Your task to perform on an android device: change keyboard looks Image 0: 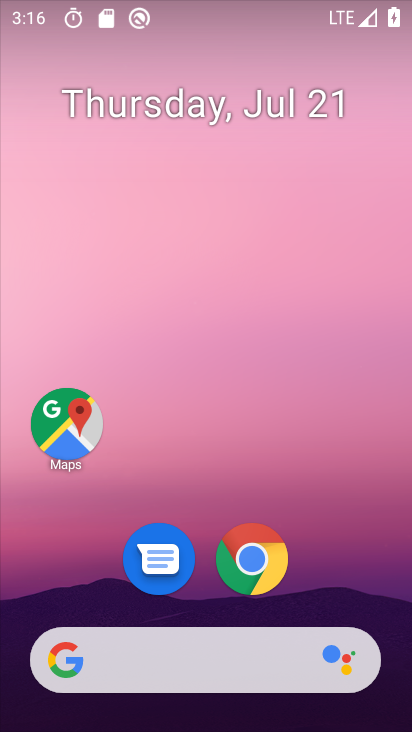
Step 0: drag from (358, 547) to (382, 83)
Your task to perform on an android device: change keyboard looks Image 1: 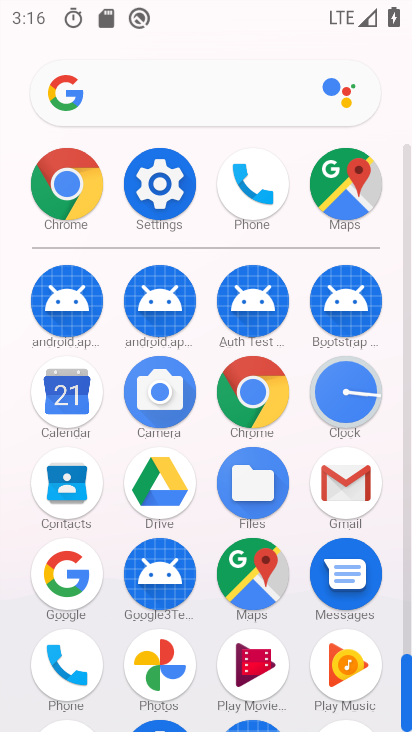
Step 1: click (170, 180)
Your task to perform on an android device: change keyboard looks Image 2: 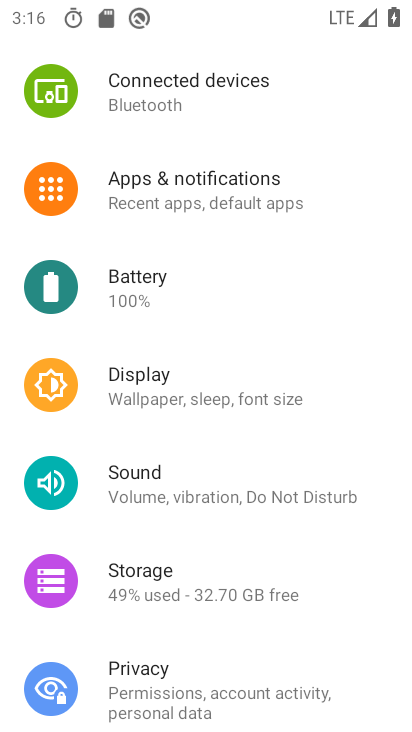
Step 2: drag from (369, 199) to (370, 276)
Your task to perform on an android device: change keyboard looks Image 3: 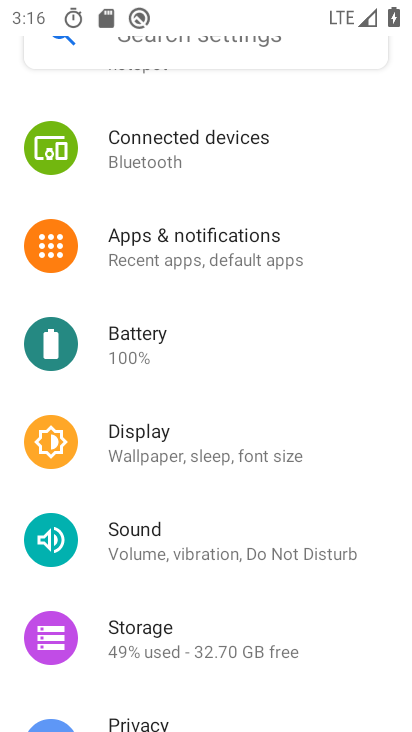
Step 3: drag from (349, 167) to (356, 268)
Your task to perform on an android device: change keyboard looks Image 4: 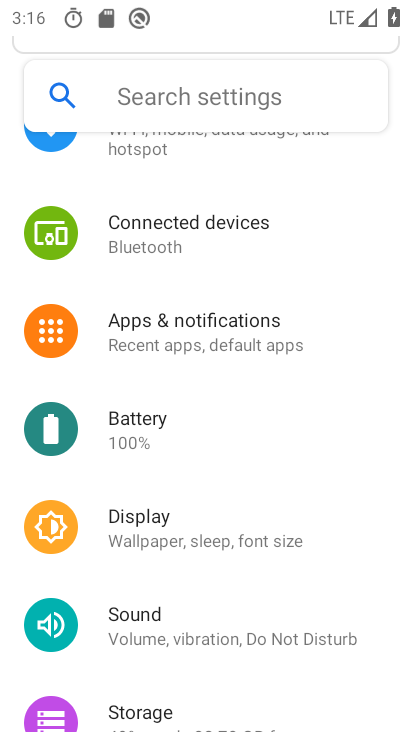
Step 4: drag from (353, 173) to (355, 271)
Your task to perform on an android device: change keyboard looks Image 5: 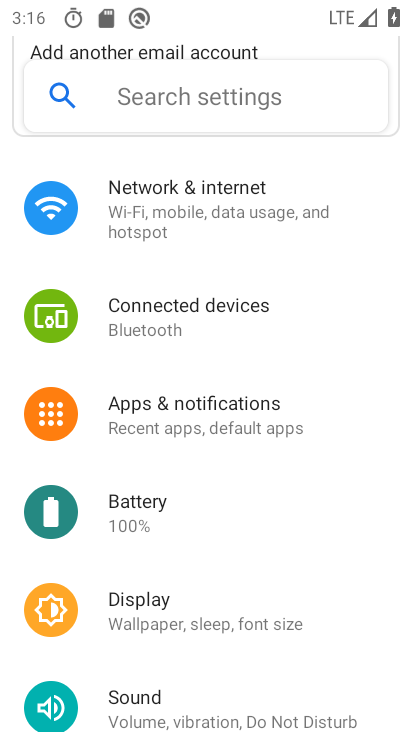
Step 5: drag from (350, 396) to (351, 318)
Your task to perform on an android device: change keyboard looks Image 6: 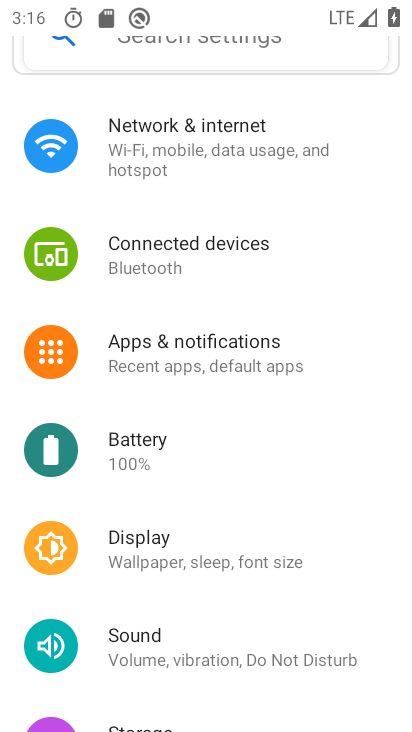
Step 6: drag from (337, 423) to (349, 341)
Your task to perform on an android device: change keyboard looks Image 7: 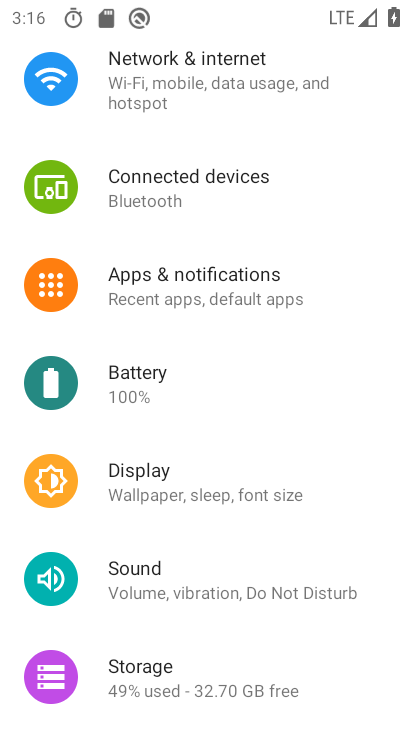
Step 7: drag from (333, 455) to (333, 376)
Your task to perform on an android device: change keyboard looks Image 8: 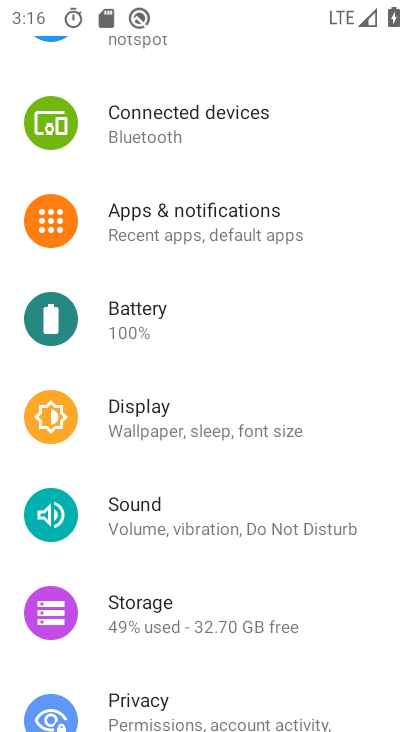
Step 8: drag from (326, 458) to (326, 382)
Your task to perform on an android device: change keyboard looks Image 9: 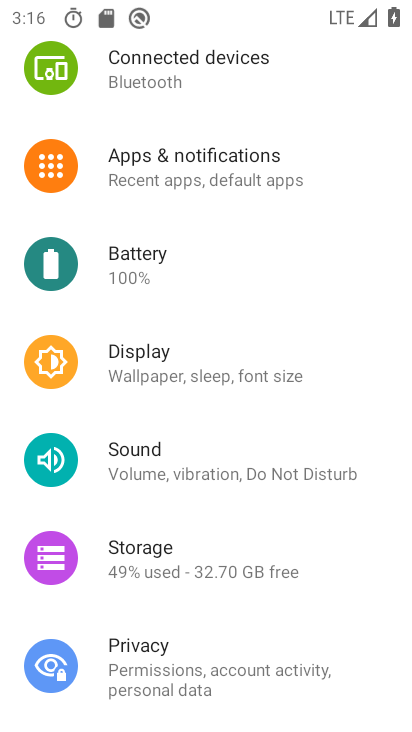
Step 9: drag from (325, 482) to (327, 422)
Your task to perform on an android device: change keyboard looks Image 10: 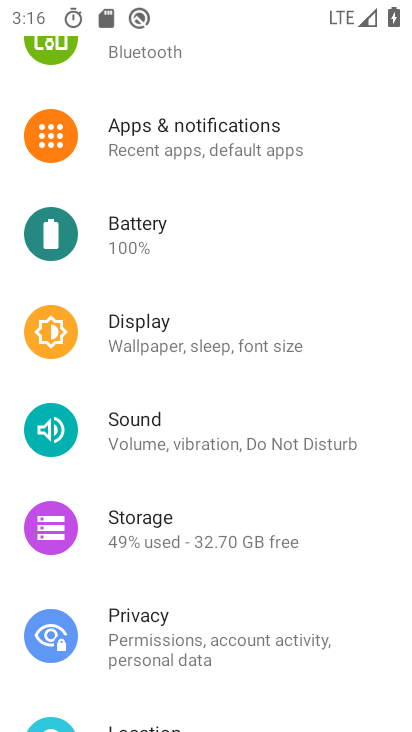
Step 10: drag from (329, 514) to (334, 436)
Your task to perform on an android device: change keyboard looks Image 11: 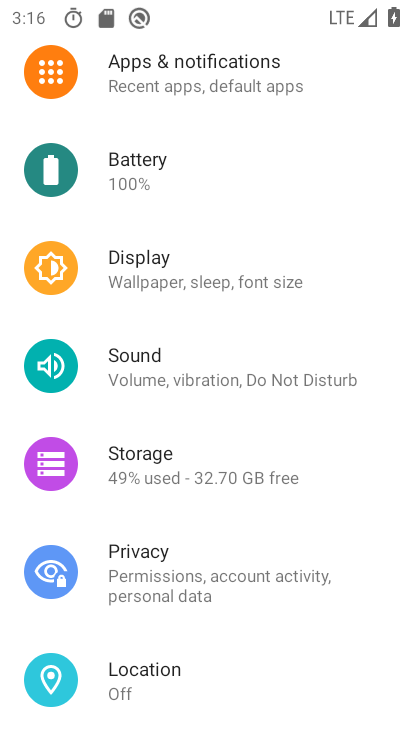
Step 11: drag from (334, 518) to (344, 438)
Your task to perform on an android device: change keyboard looks Image 12: 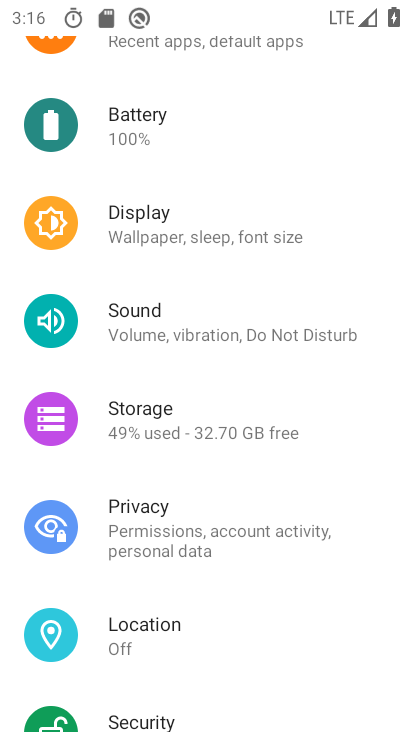
Step 12: drag from (354, 515) to (356, 437)
Your task to perform on an android device: change keyboard looks Image 13: 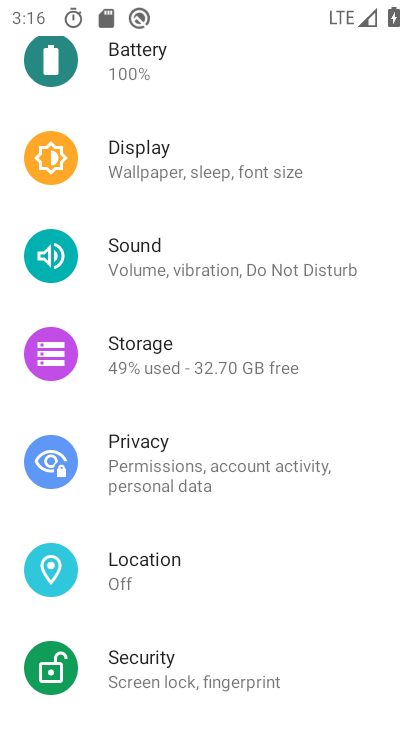
Step 13: drag from (356, 512) to (358, 421)
Your task to perform on an android device: change keyboard looks Image 14: 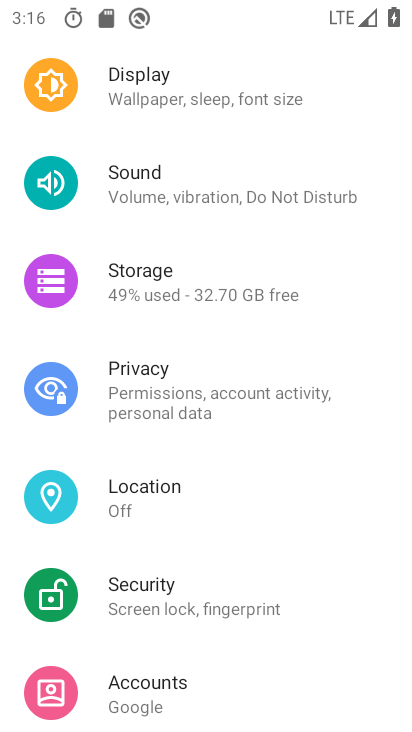
Step 14: drag from (353, 501) to (354, 383)
Your task to perform on an android device: change keyboard looks Image 15: 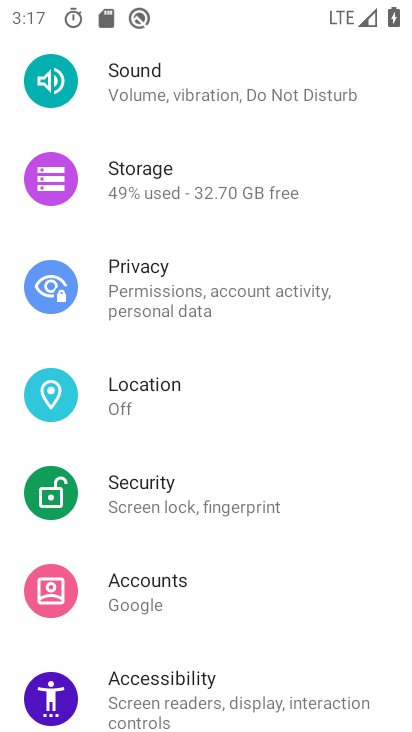
Step 15: drag from (341, 487) to (341, 382)
Your task to perform on an android device: change keyboard looks Image 16: 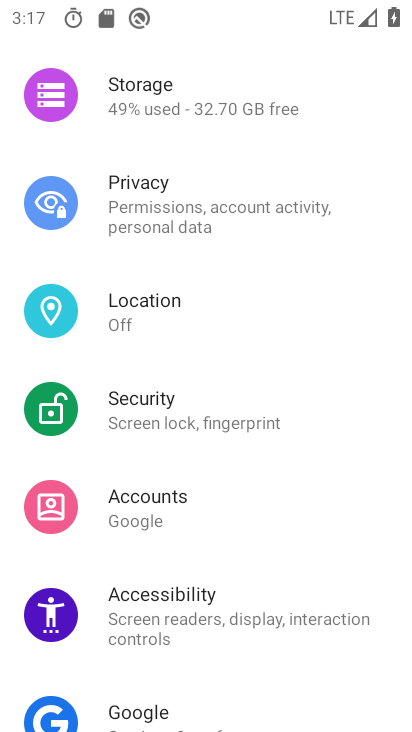
Step 16: drag from (333, 503) to (336, 374)
Your task to perform on an android device: change keyboard looks Image 17: 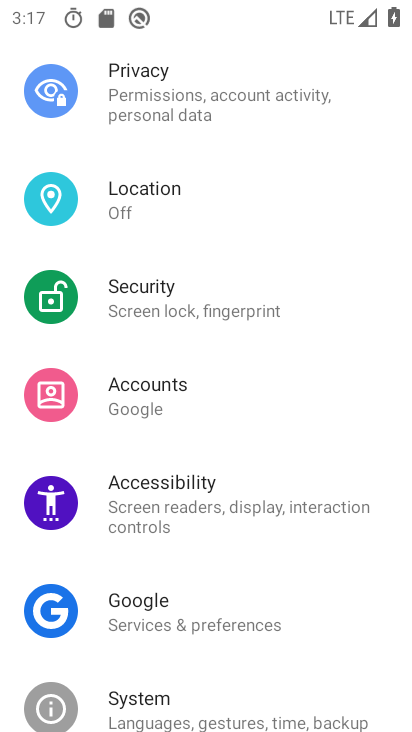
Step 17: drag from (327, 569) to (331, 391)
Your task to perform on an android device: change keyboard looks Image 18: 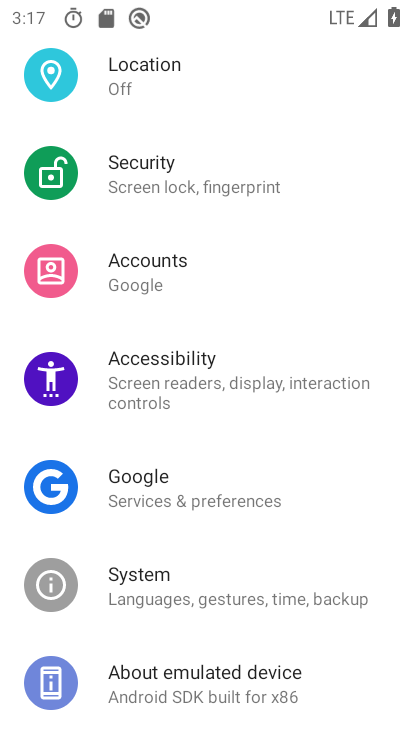
Step 18: click (326, 597)
Your task to perform on an android device: change keyboard looks Image 19: 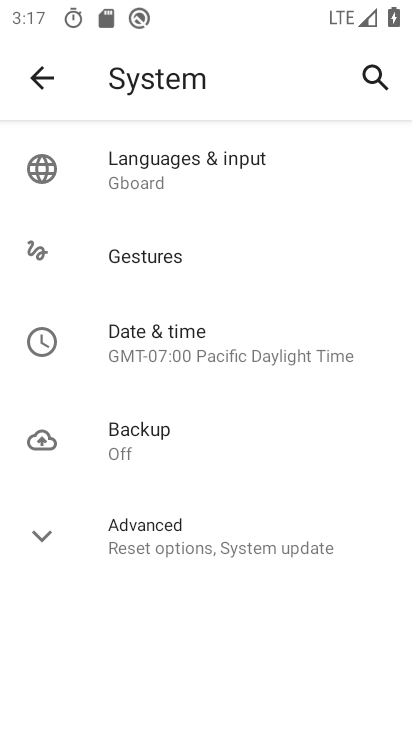
Step 19: click (301, 546)
Your task to perform on an android device: change keyboard looks Image 20: 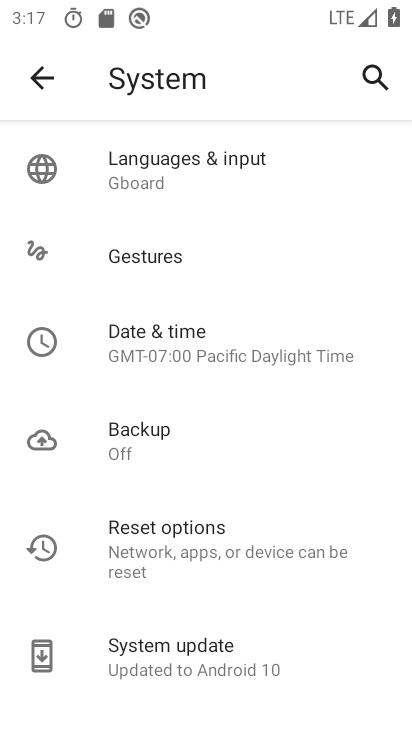
Step 20: task complete